Your task to perform on an android device: stop showing notifications on the lock screen Image 0: 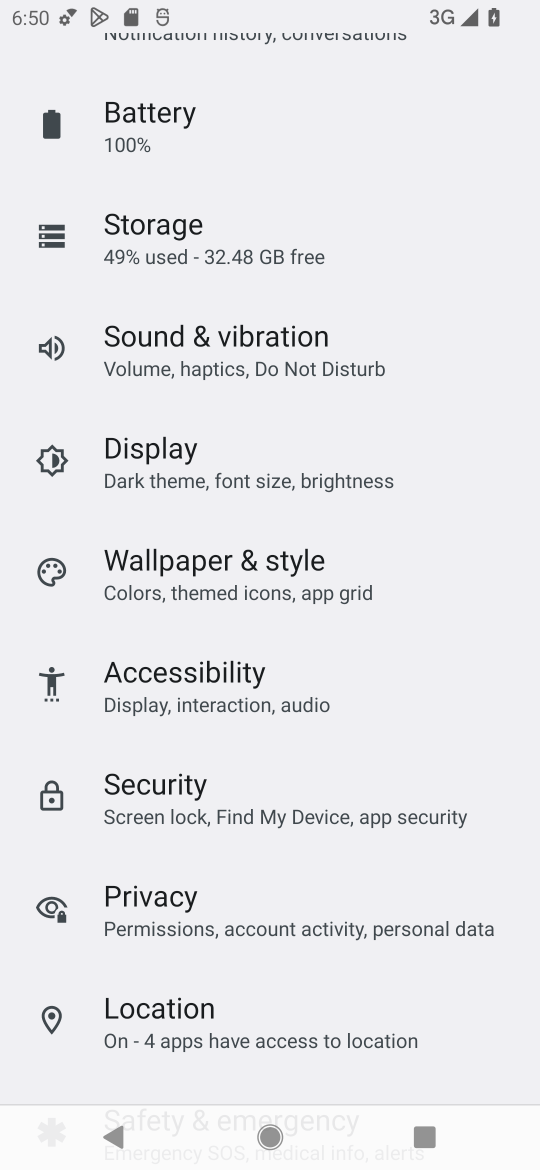
Step 0: drag from (385, 209) to (336, 1167)
Your task to perform on an android device: stop showing notifications on the lock screen Image 1: 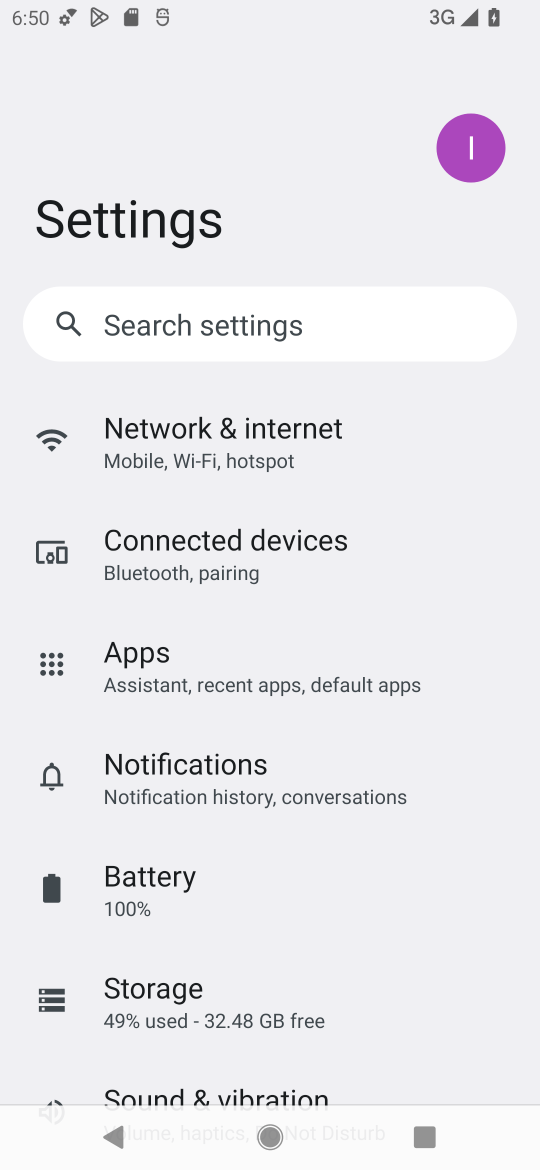
Step 1: click (214, 797)
Your task to perform on an android device: stop showing notifications on the lock screen Image 2: 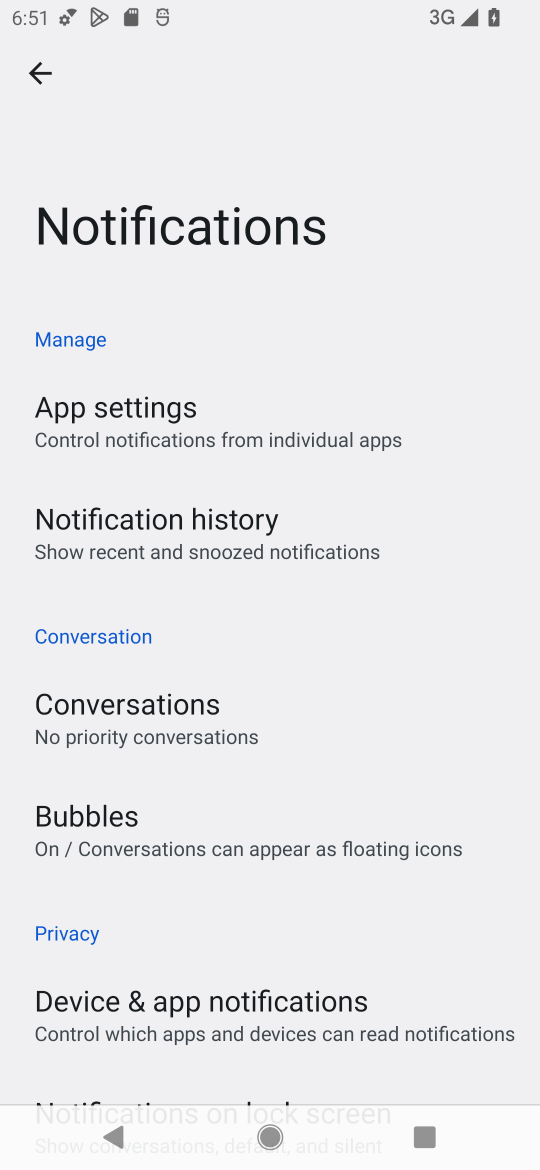
Step 2: drag from (323, 874) to (227, 425)
Your task to perform on an android device: stop showing notifications on the lock screen Image 3: 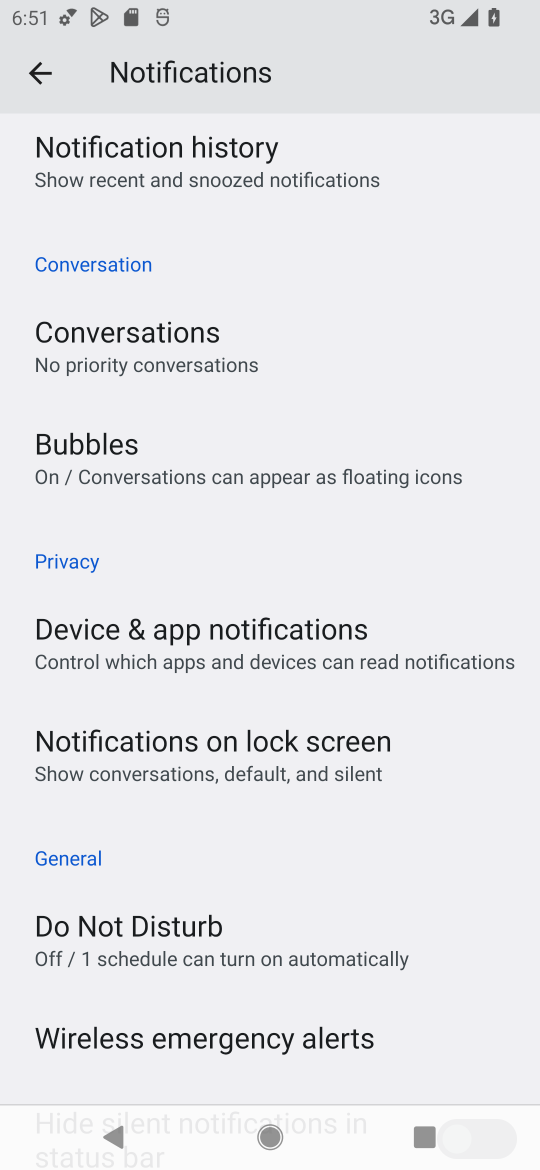
Step 3: click (238, 757)
Your task to perform on an android device: stop showing notifications on the lock screen Image 4: 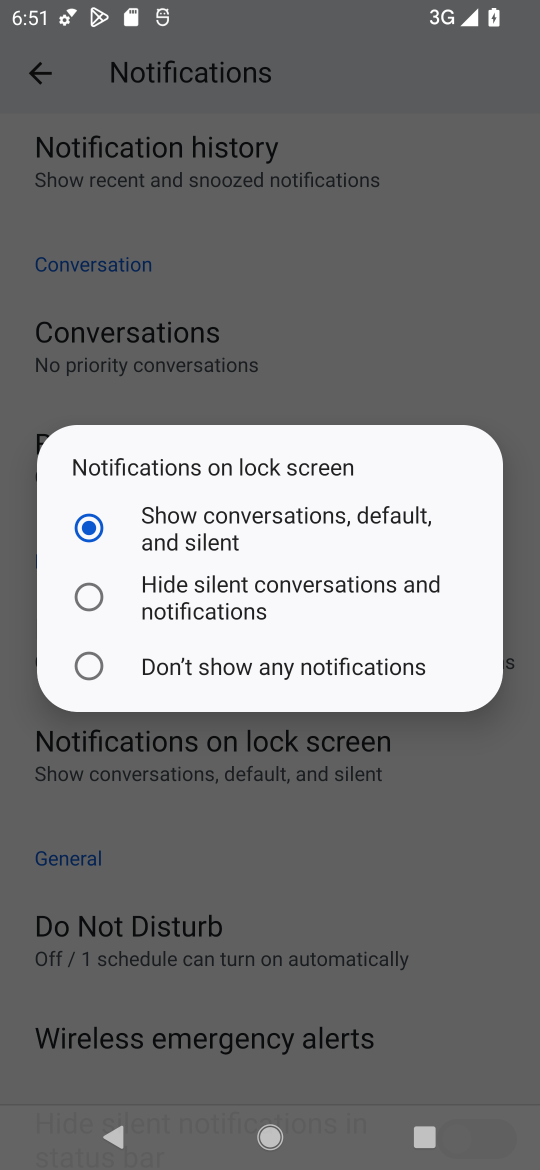
Step 4: click (194, 516)
Your task to perform on an android device: stop showing notifications on the lock screen Image 5: 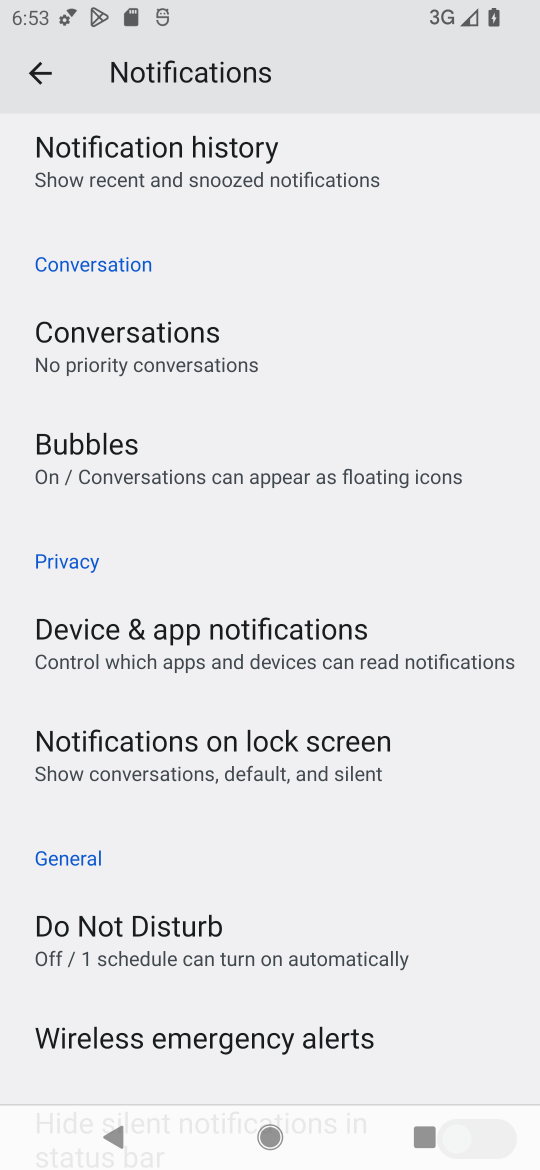
Step 5: click (265, 745)
Your task to perform on an android device: stop showing notifications on the lock screen Image 6: 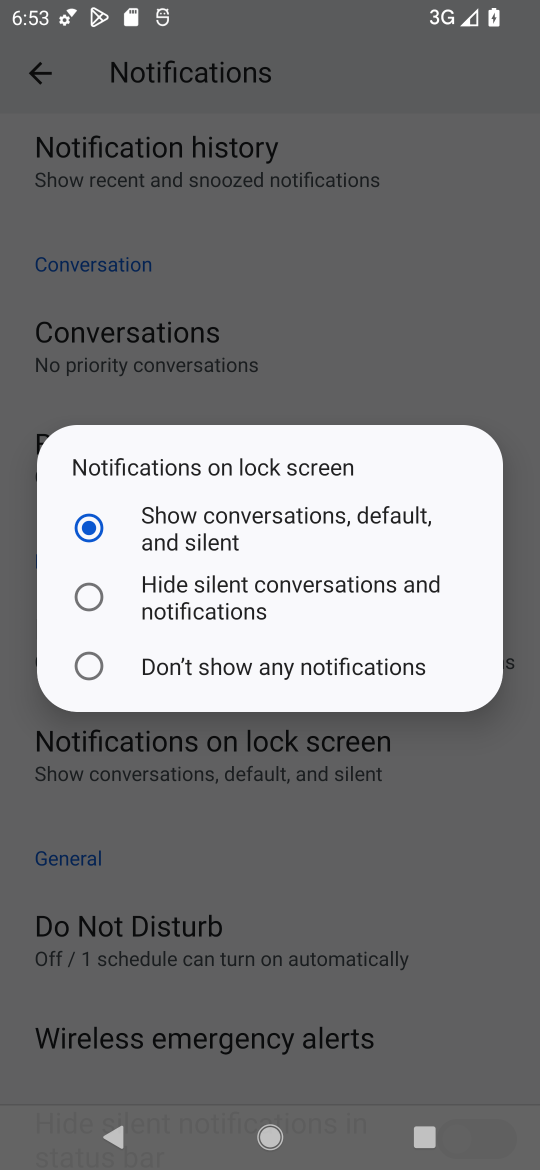
Step 6: click (204, 674)
Your task to perform on an android device: stop showing notifications on the lock screen Image 7: 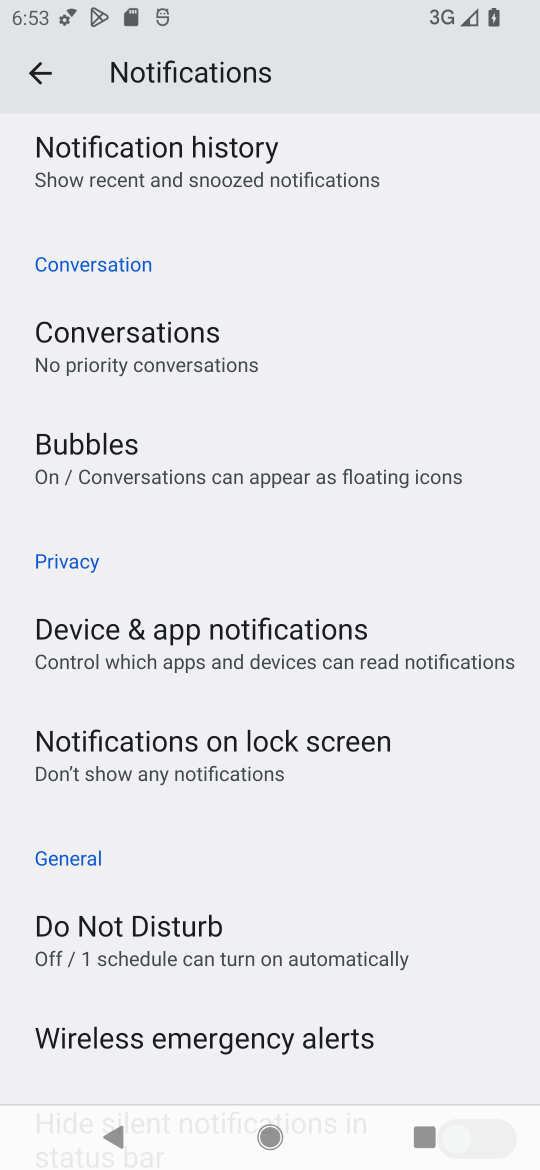
Step 7: task complete